Your task to perform on an android device: star an email in the gmail app Image 0: 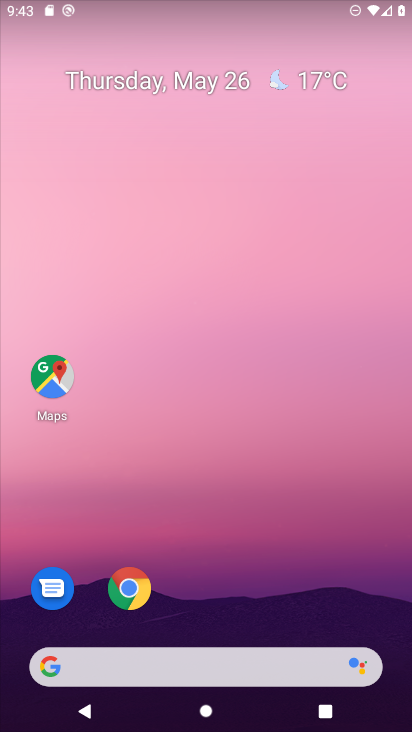
Step 0: drag from (381, 634) to (311, 167)
Your task to perform on an android device: star an email in the gmail app Image 1: 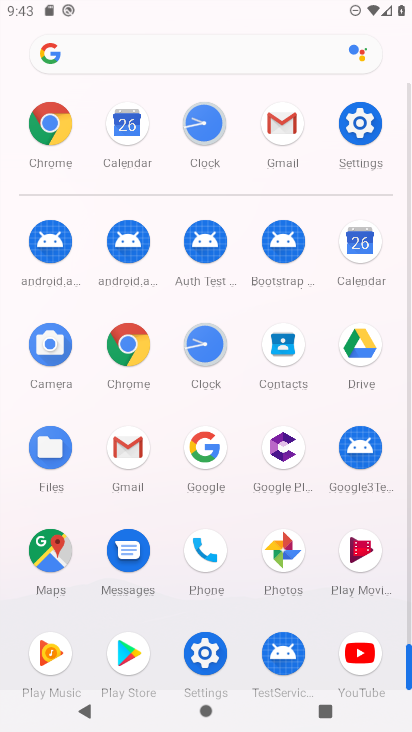
Step 1: click (129, 446)
Your task to perform on an android device: star an email in the gmail app Image 2: 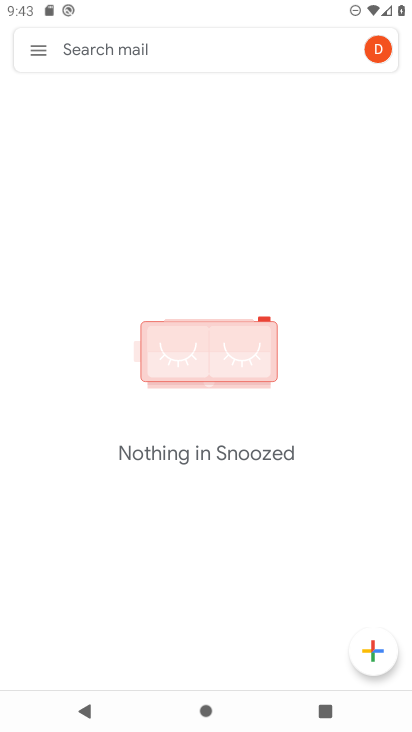
Step 2: click (38, 50)
Your task to perform on an android device: star an email in the gmail app Image 3: 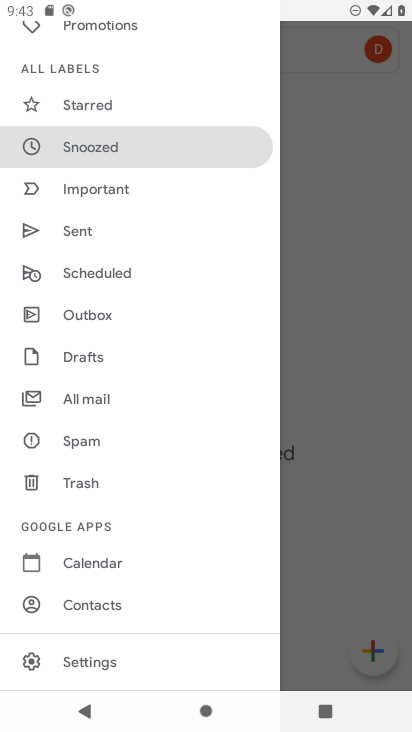
Step 3: click (70, 402)
Your task to perform on an android device: star an email in the gmail app Image 4: 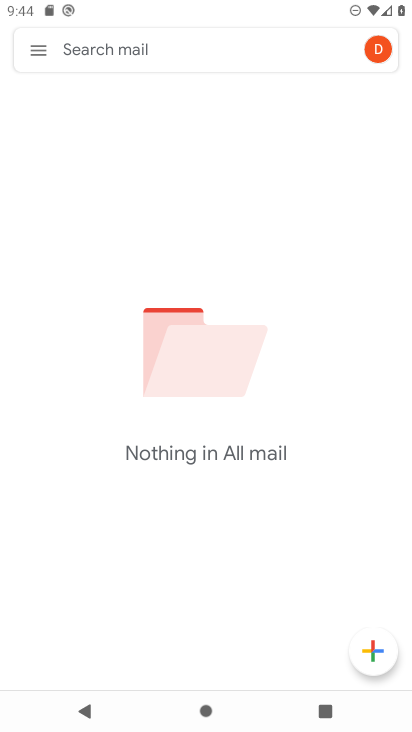
Step 4: task complete